Your task to perform on an android device: Go to sound settings Image 0: 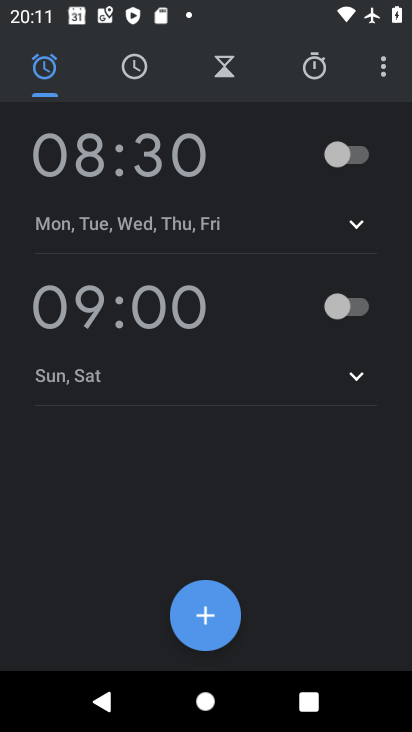
Step 0: press home button
Your task to perform on an android device: Go to sound settings Image 1: 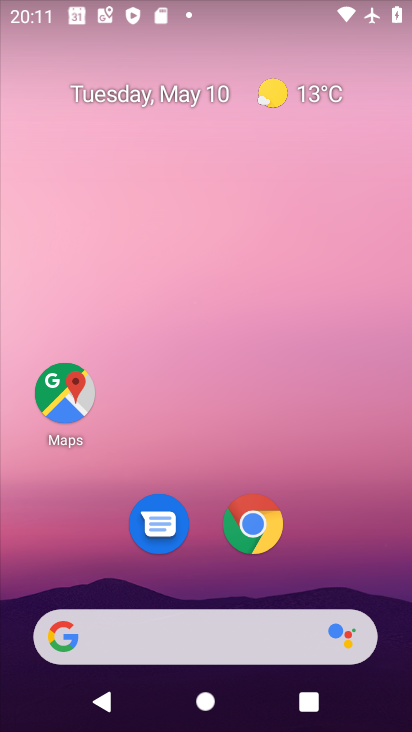
Step 1: drag from (304, 569) to (341, 63)
Your task to perform on an android device: Go to sound settings Image 2: 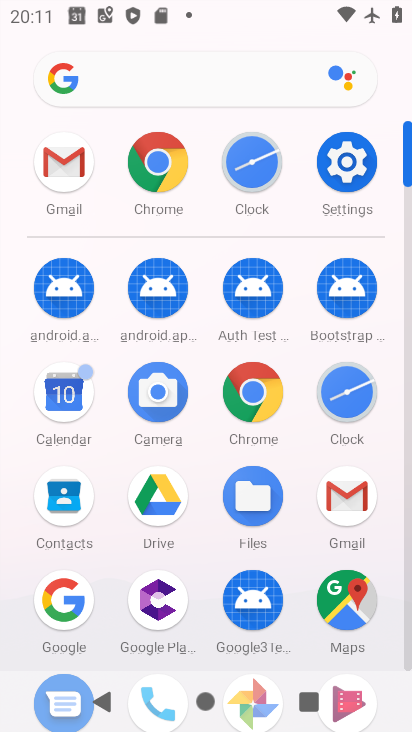
Step 2: click (346, 156)
Your task to perform on an android device: Go to sound settings Image 3: 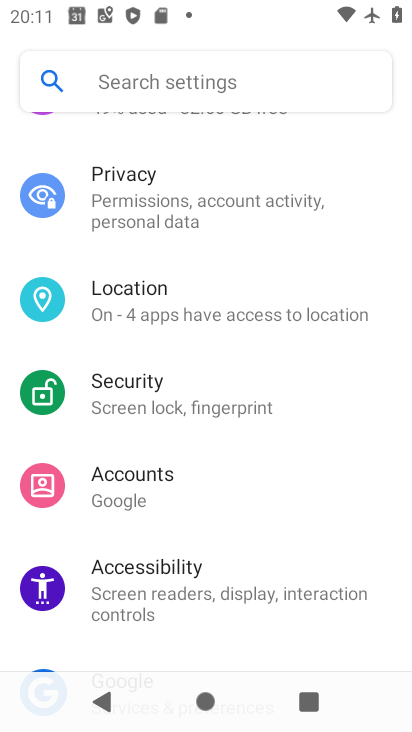
Step 3: drag from (270, 151) to (274, 562)
Your task to perform on an android device: Go to sound settings Image 4: 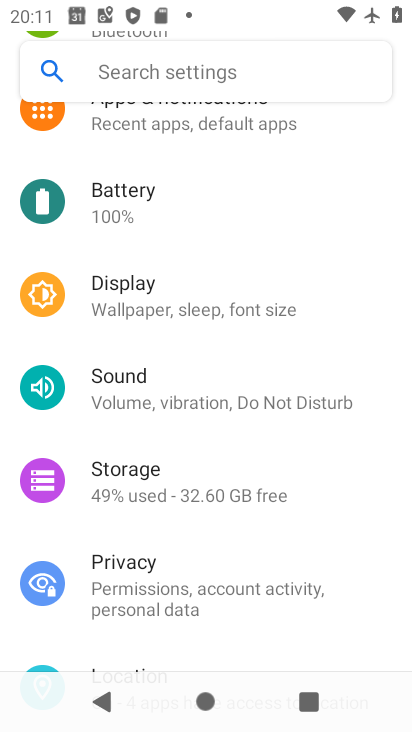
Step 4: click (213, 382)
Your task to perform on an android device: Go to sound settings Image 5: 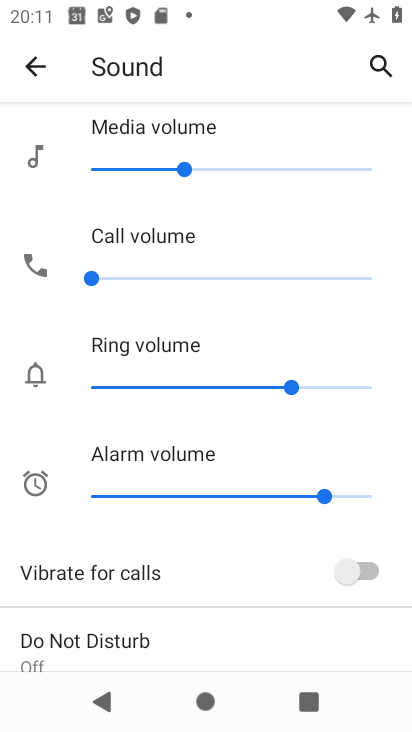
Step 5: task complete